Your task to perform on an android device: toggle airplane mode Image 0: 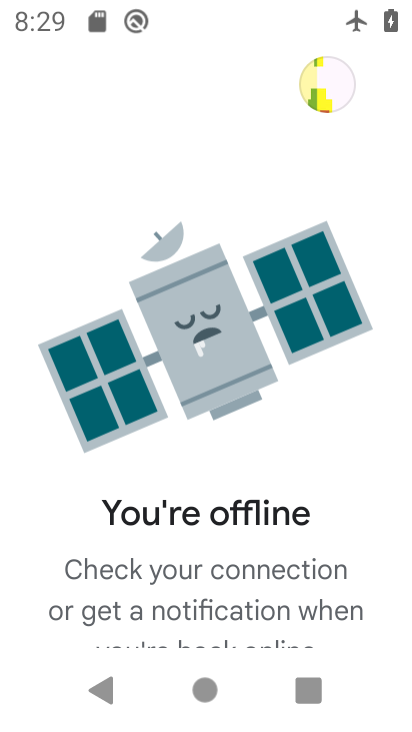
Step 0: press home button
Your task to perform on an android device: toggle airplane mode Image 1: 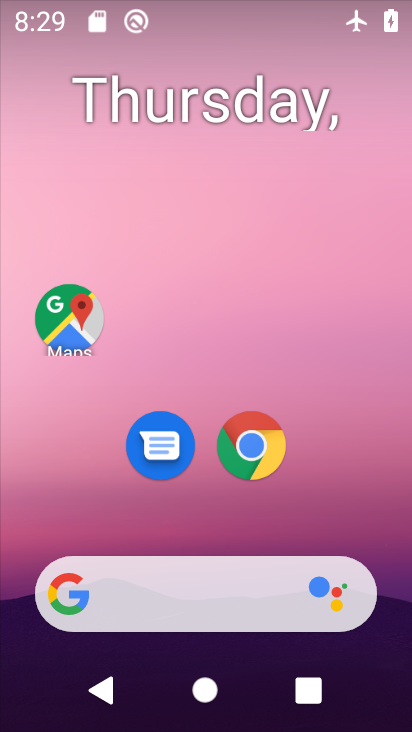
Step 1: drag from (315, 522) to (332, 125)
Your task to perform on an android device: toggle airplane mode Image 2: 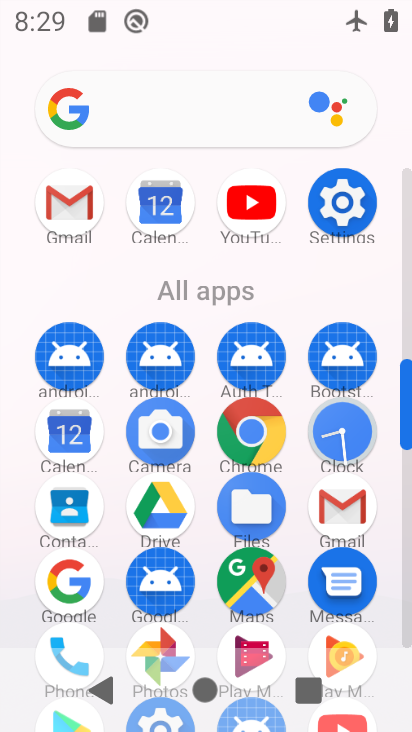
Step 2: click (351, 180)
Your task to perform on an android device: toggle airplane mode Image 3: 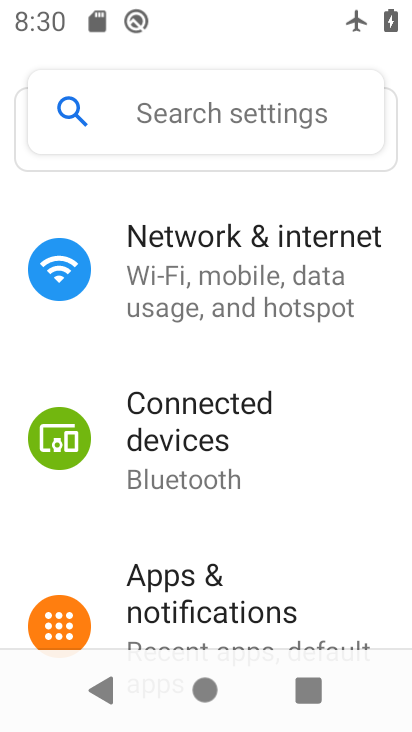
Step 3: click (194, 281)
Your task to perform on an android device: toggle airplane mode Image 4: 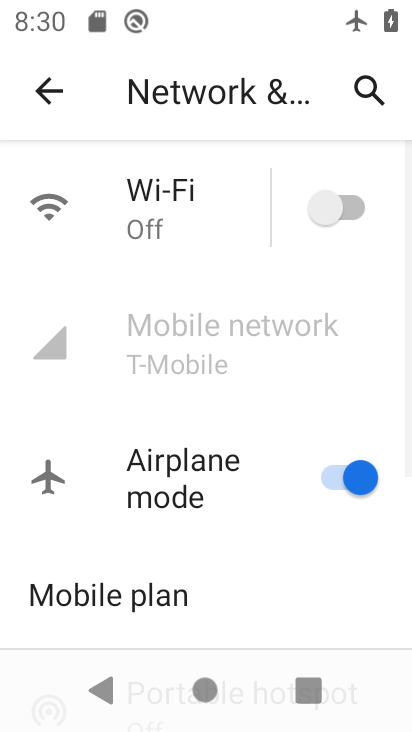
Step 4: click (339, 477)
Your task to perform on an android device: toggle airplane mode Image 5: 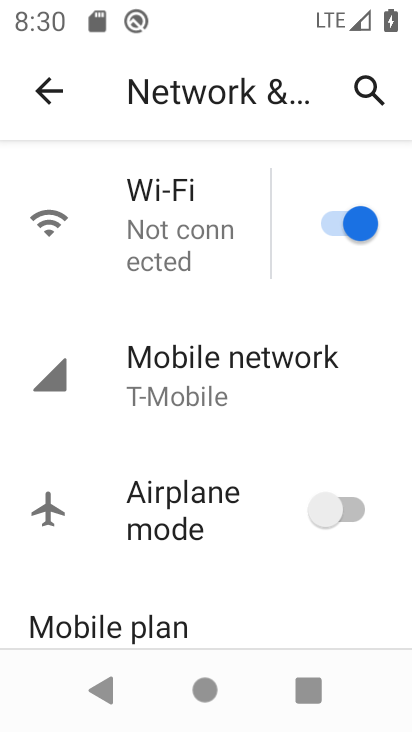
Step 5: task complete